Your task to perform on an android device: toggle show notifications on the lock screen Image 0: 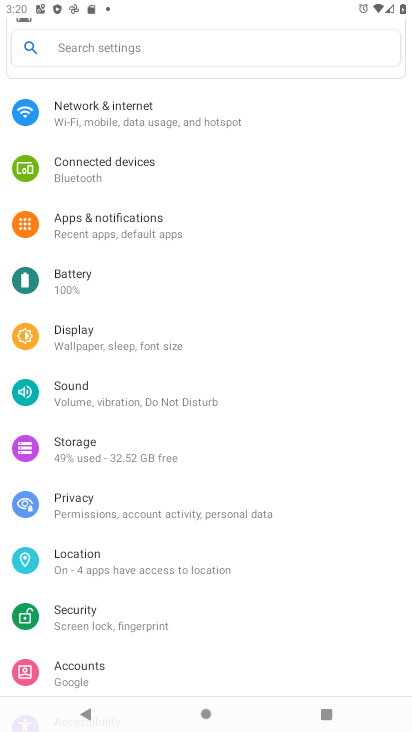
Step 0: click (147, 222)
Your task to perform on an android device: toggle show notifications on the lock screen Image 1: 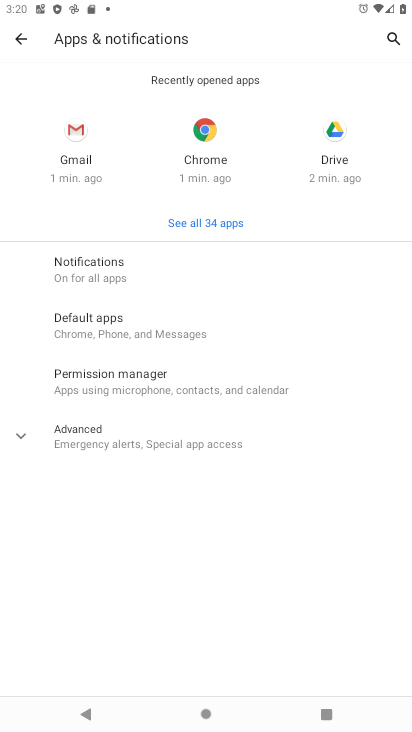
Step 1: click (124, 270)
Your task to perform on an android device: toggle show notifications on the lock screen Image 2: 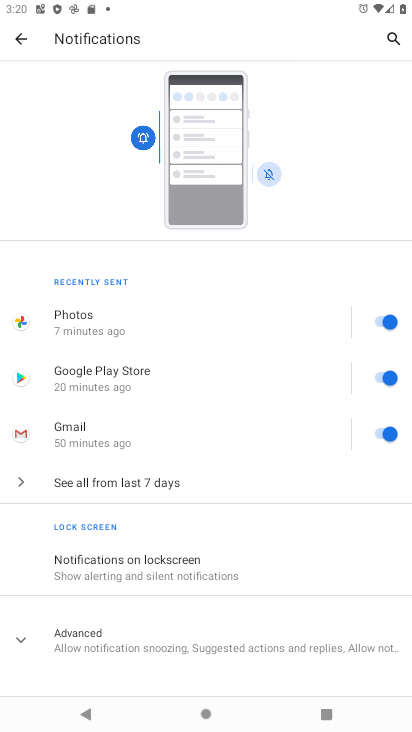
Step 2: click (145, 562)
Your task to perform on an android device: toggle show notifications on the lock screen Image 3: 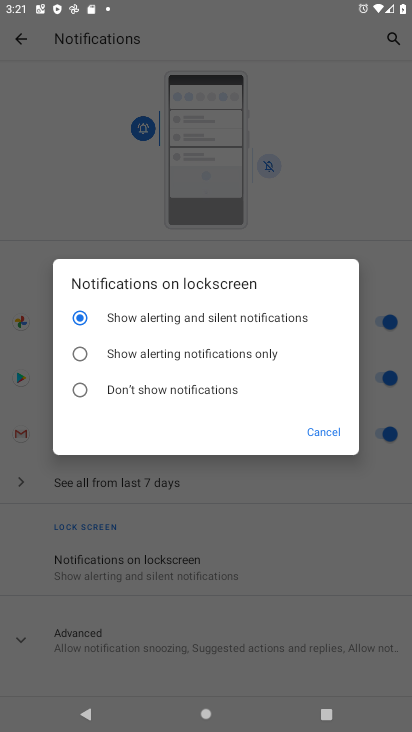
Step 3: task complete